Your task to perform on an android device: manage bookmarks in the chrome app Image 0: 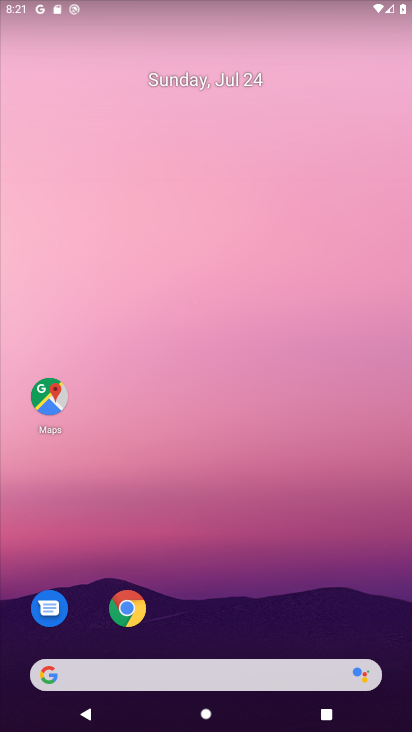
Step 0: click (124, 599)
Your task to perform on an android device: manage bookmarks in the chrome app Image 1: 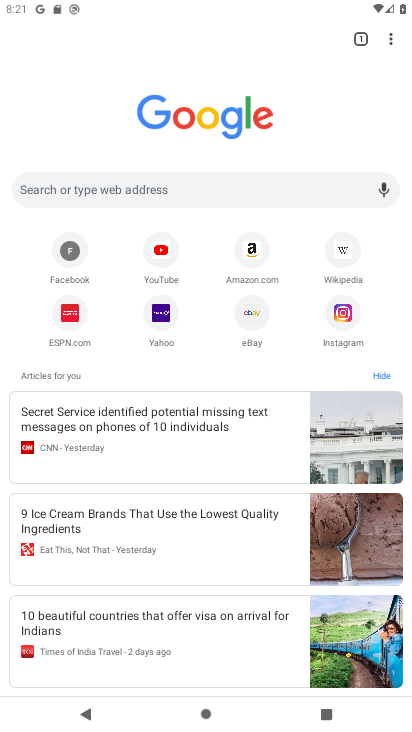
Step 1: click (398, 45)
Your task to perform on an android device: manage bookmarks in the chrome app Image 2: 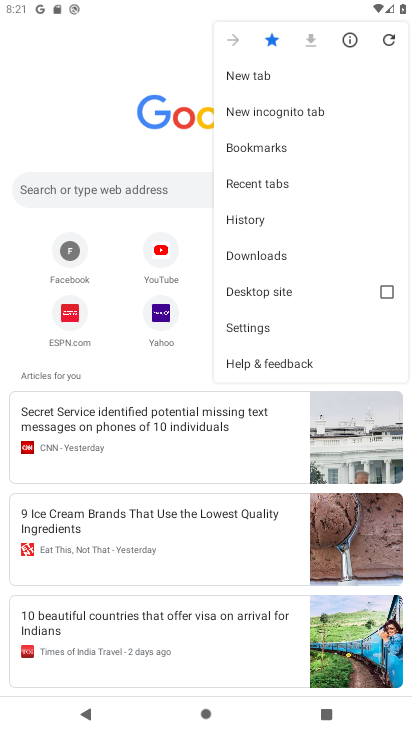
Step 2: click (265, 163)
Your task to perform on an android device: manage bookmarks in the chrome app Image 3: 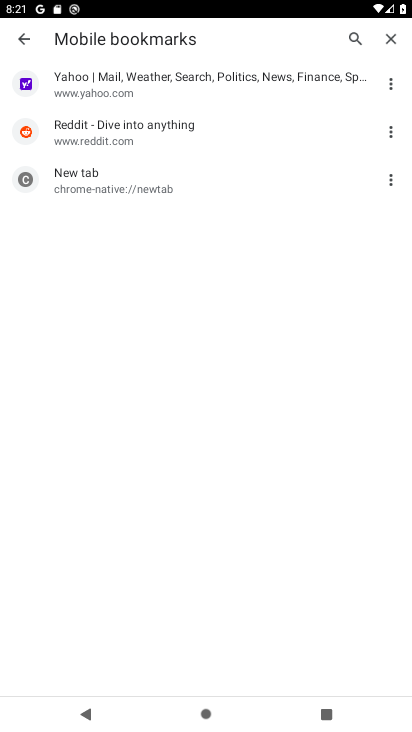
Step 3: click (388, 141)
Your task to perform on an android device: manage bookmarks in the chrome app Image 4: 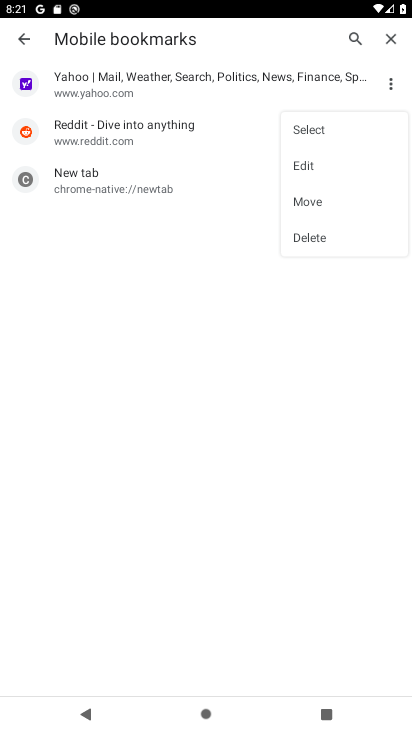
Step 4: click (306, 245)
Your task to perform on an android device: manage bookmarks in the chrome app Image 5: 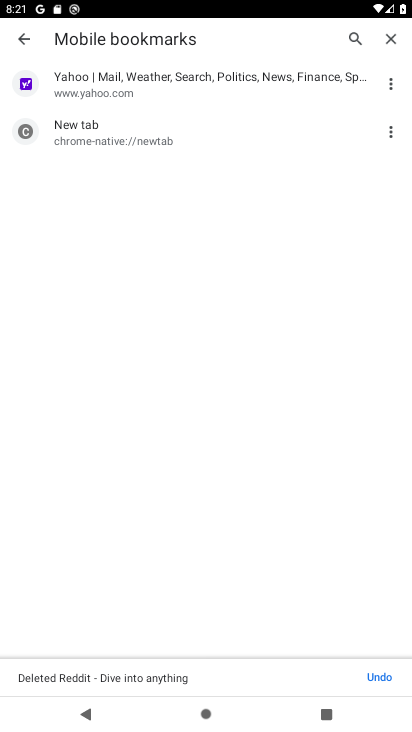
Step 5: task complete